Your task to perform on an android device: Open the web browser Image 0: 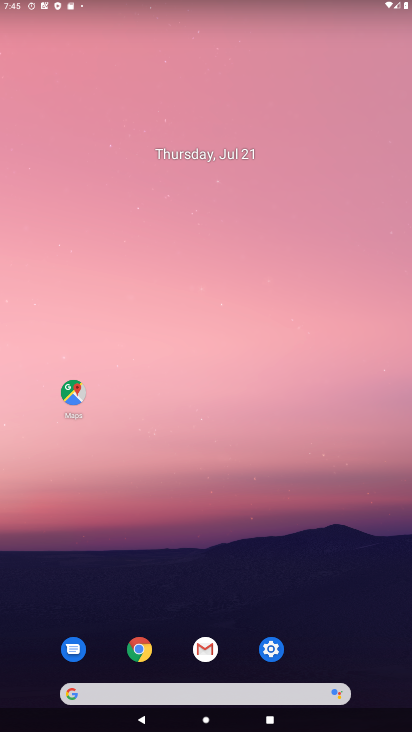
Step 0: click (146, 668)
Your task to perform on an android device: Open the web browser Image 1: 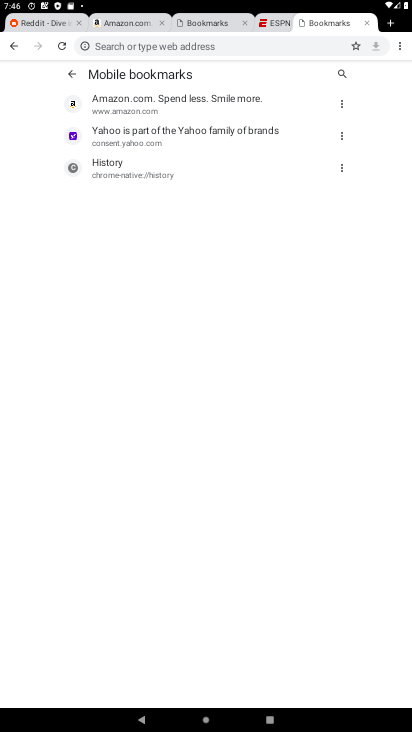
Step 1: click (281, 52)
Your task to perform on an android device: Open the web browser Image 2: 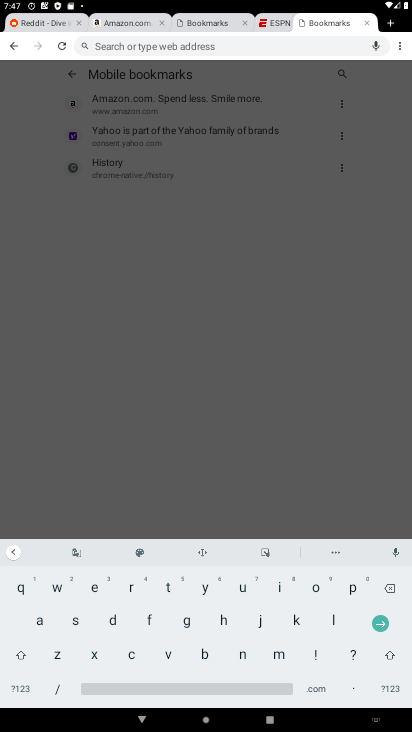
Step 2: task complete